Your task to perform on an android device: toggle improve location accuracy Image 0: 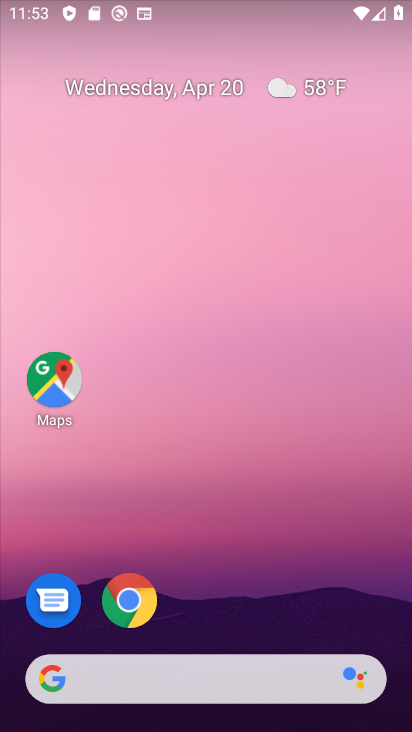
Step 0: drag from (241, 643) to (222, 40)
Your task to perform on an android device: toggle improve location accuracy Image 1: 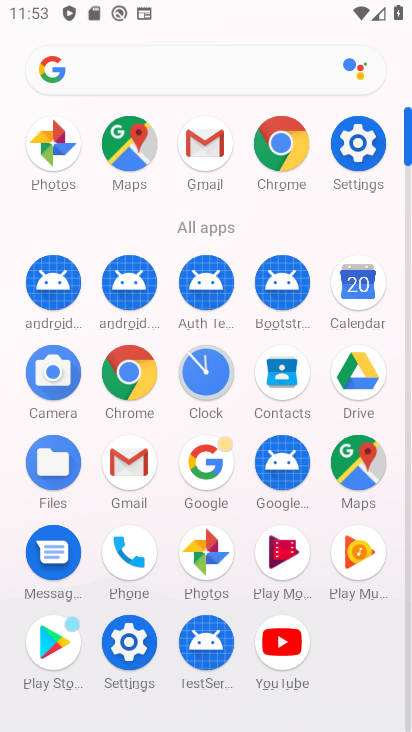
Step 1: click (360, 132)
Your task to perform on an android device: toggle improve location accuracy Image 2: 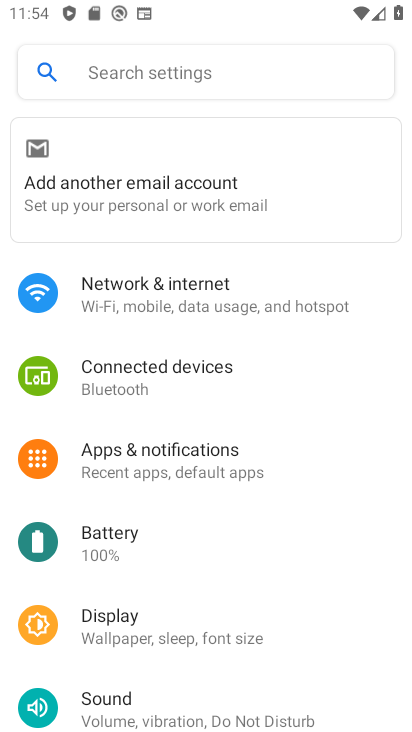
Step 2: drag from (178, 639) to (167, 118)
Your task to perform on an android device: toggle improve location accuracy Image 3: 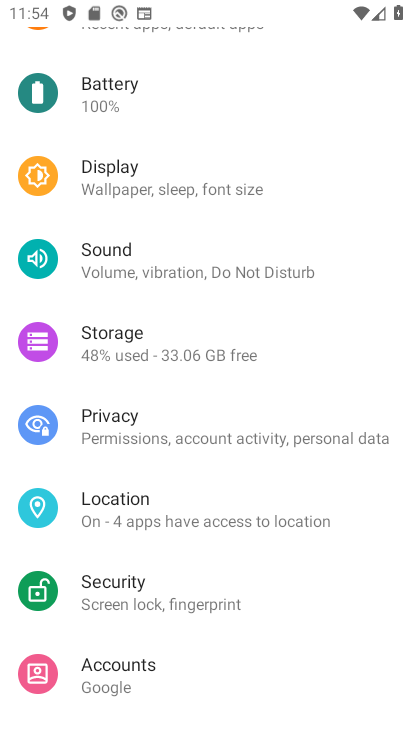
Step 3: click (126, 506)
Your task to perform on an android device: toggle improve location accuracy Image 4: 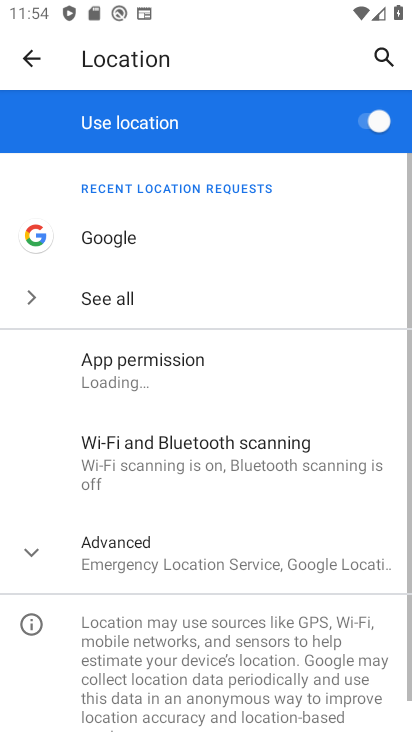
Step 4: click (158, 551)
Your task to perform on an android device: toggle improve location accuracy Image 5: 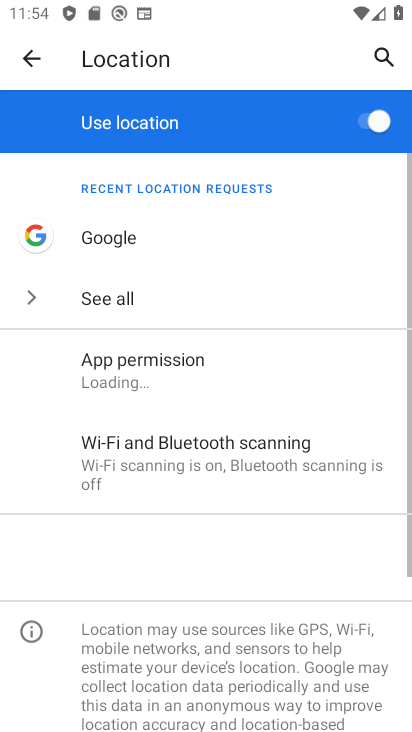
Step 5: drag from (158, 551) to (140, 164)
Your task to perform on an android device: toggle improve location accuracy Image 6: 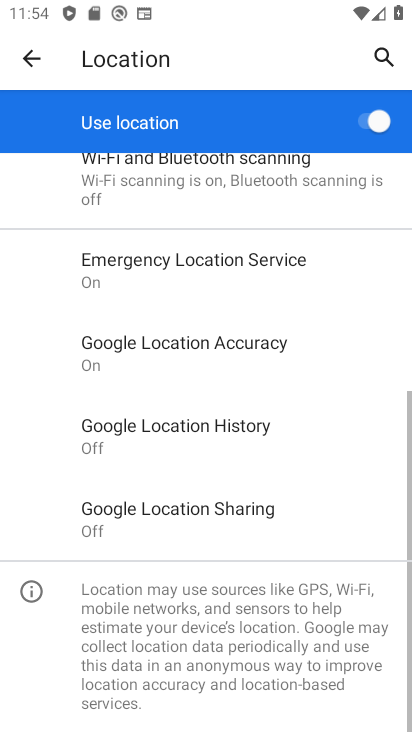
Step 6: click (179, 343)
Your task to perform on an android device: toggle improve location accuracy Image 7: 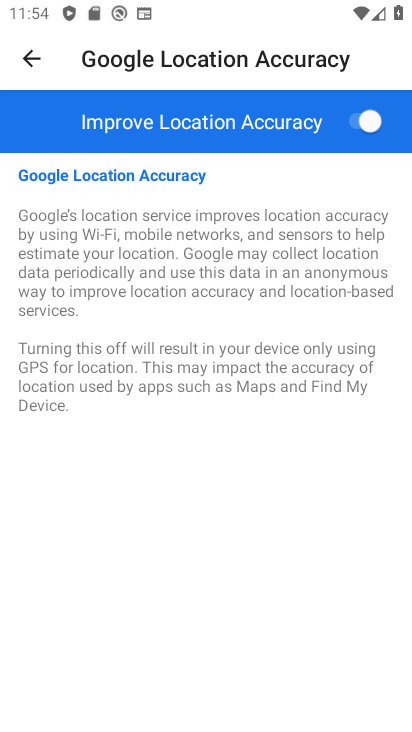
Step 7: click (344, 111)
Your task to perform on an android device: toggle improve location accuracy Image 8: 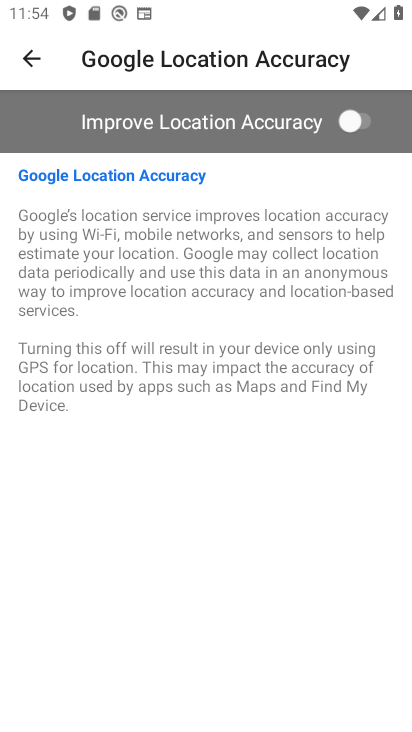
Step 8: task complete